Your task to perform on an android device: turn off javascript in the chrome app Image 0: 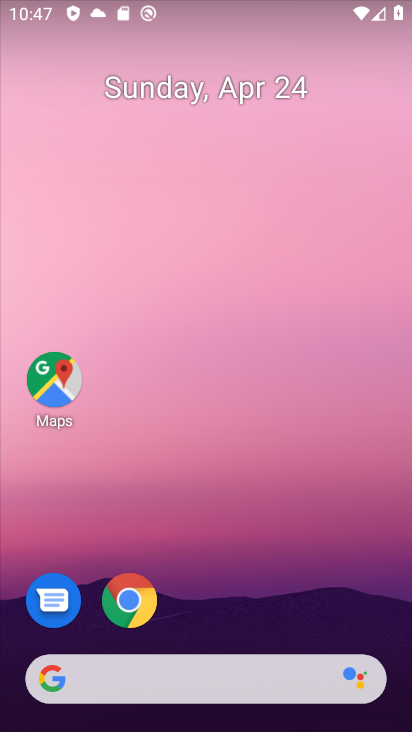
Step 0: click (130, 603)
Your task to perform on an android device: turn off javascript in the chrome app Image 1: 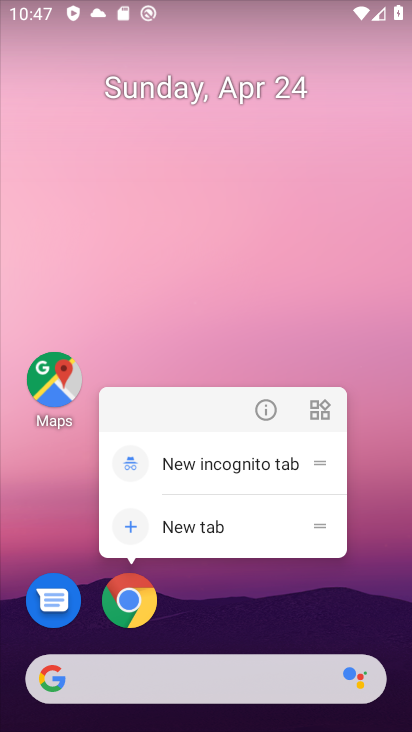
Step 1: click (126, 594)
Your task to perform on an android device: turn off javascript in the chrome app Image 2: 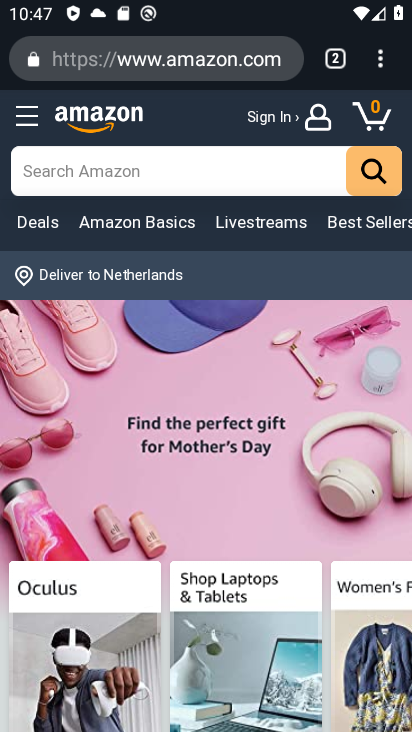
Step 2: click (379, 58)
Your task to perform on an android device: turn off javascript in the chrome app Image 3: 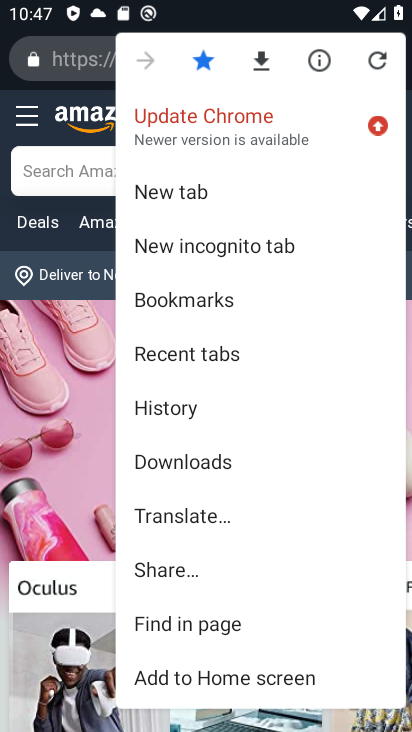
Step 3: drag from (240, 594) to (207, 176)
Your task to perform on an android device: turn off javascript in the chrome app Image 4: 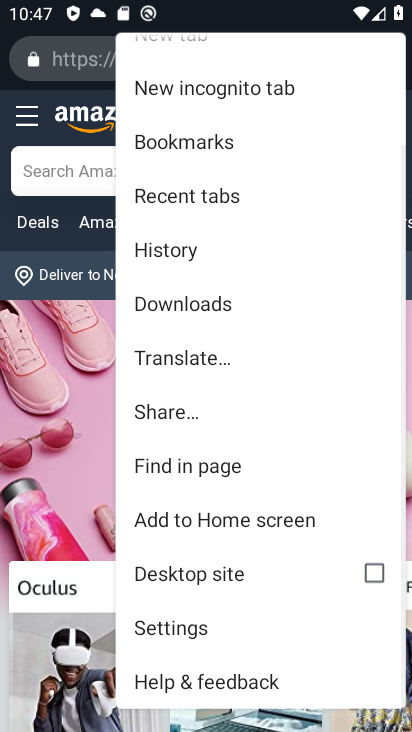
Step 4: click (177, 622)
Your task to perform on an android device: turn off javascript in the chrome app Image 5: 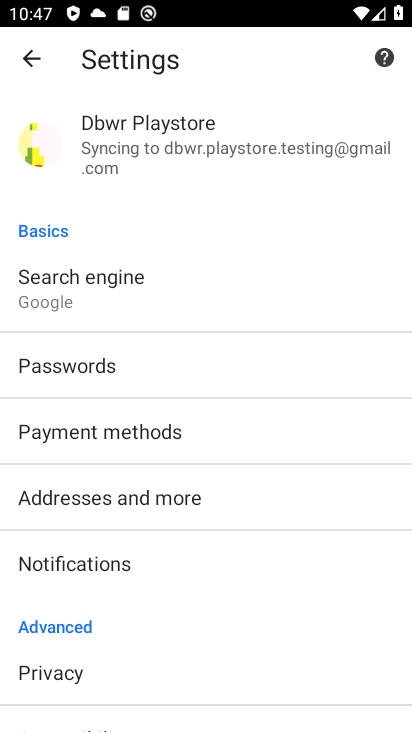
Step 5: drag from (146, 624) to (132, 289)
Your task to perform on an android device: turn off javascript in the chrome app Image 6: 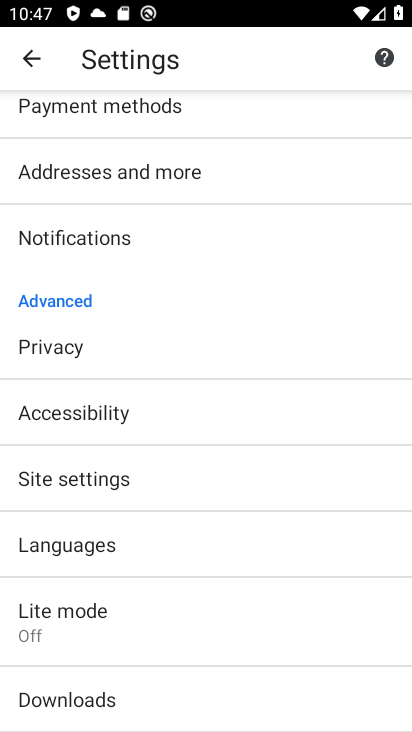
Step 6: click (70, 473)
Your task to perform on an android device: turn off javascript in the chrome app Image 7: 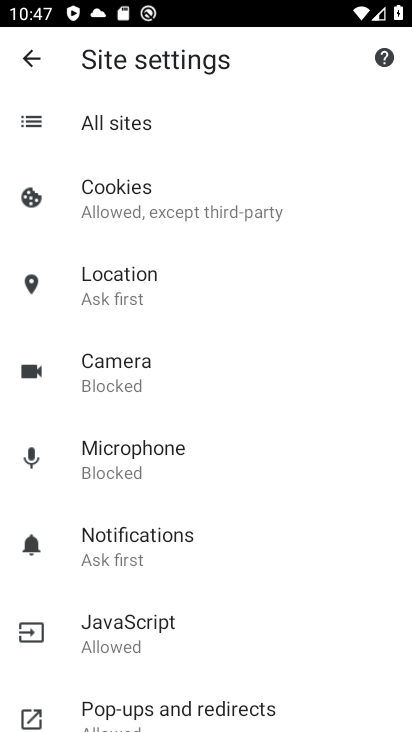
Step 7: click (153, 624)
Your task to perform on an android device: turn off javascript in the chrome app Image 8: 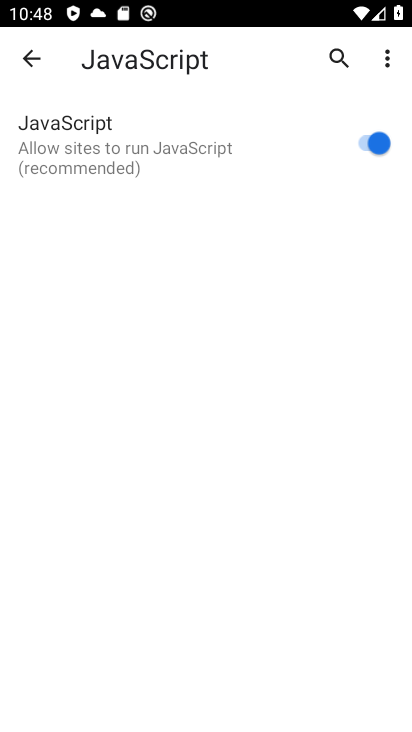
Step 8: click (373, 148)
Your task to perform on an android device: turn off javascript in the chrome app Image 9: 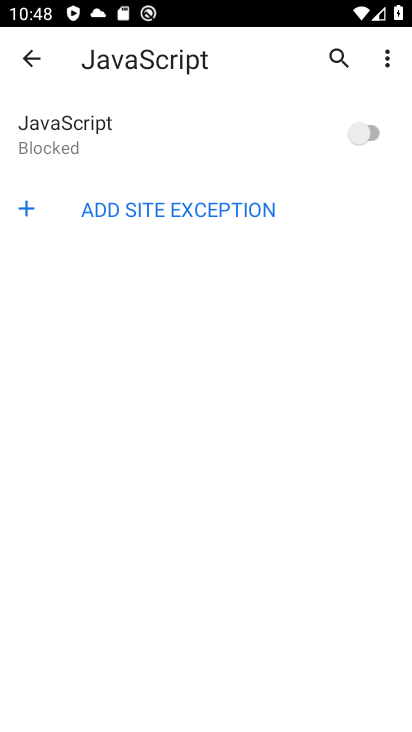
Step 9: task complete